Your task to perform on an android device: install app "Airtel Thanks" Image 0: 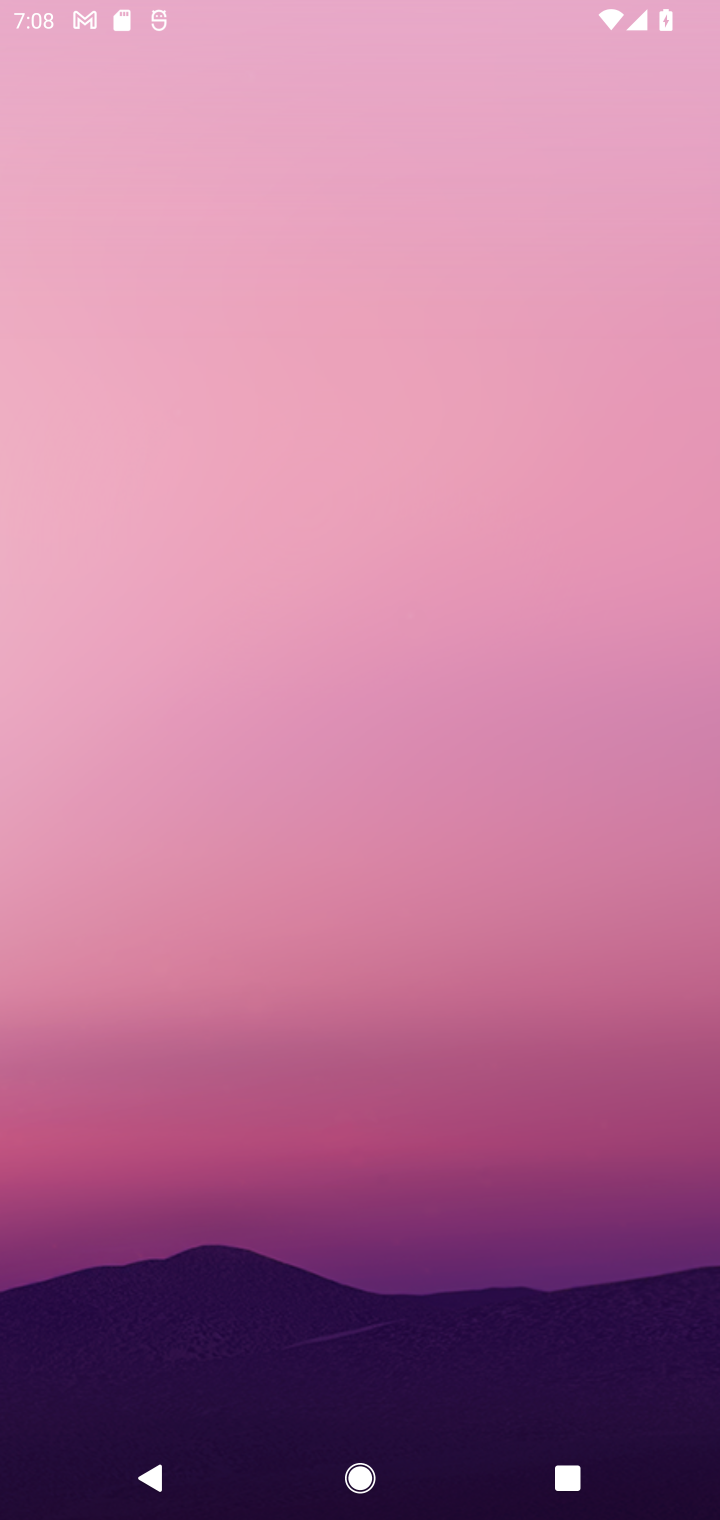
Step 0: press home button
Your task to perform on an android device: install app "Airtel Thanks" Image 1: 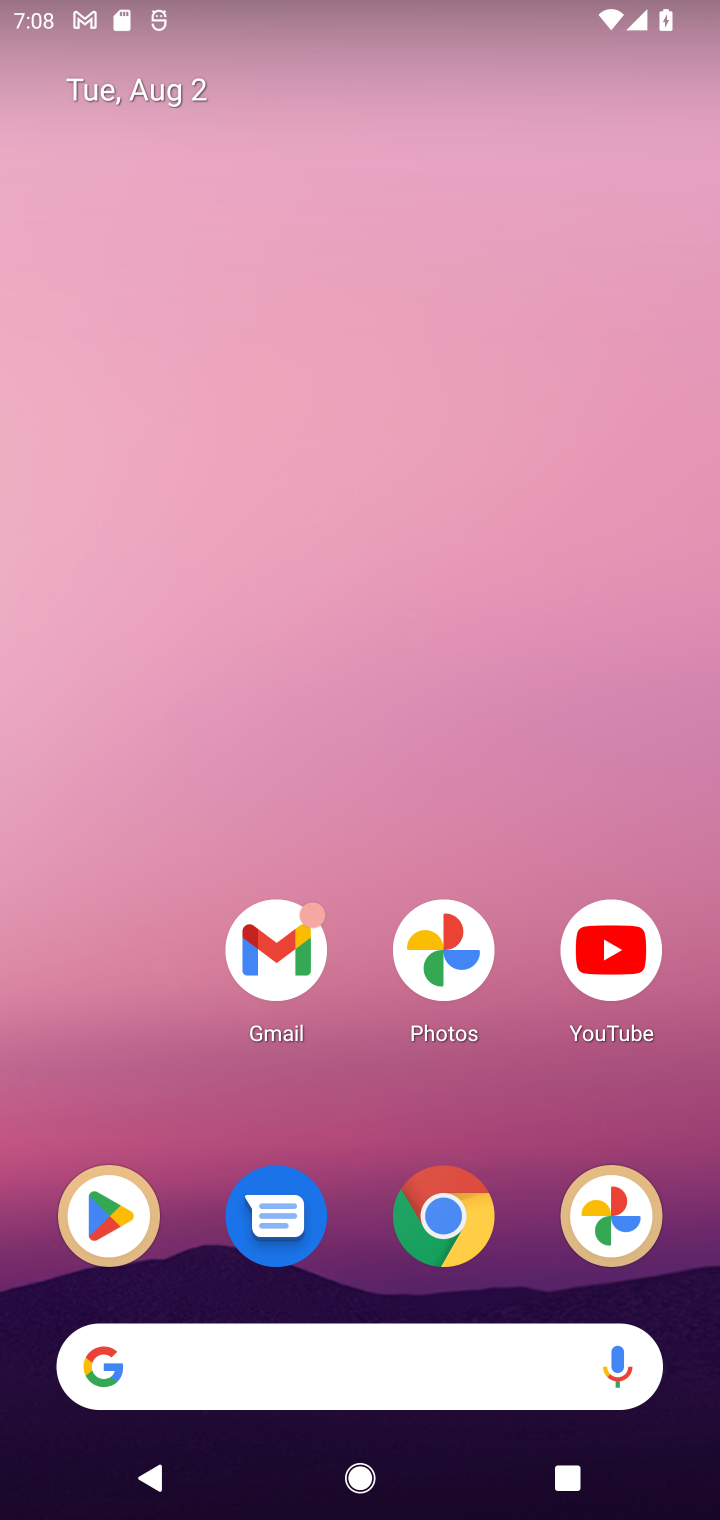
Step 1: click (94, 1217)
Your task to perform on an android device: install app "Airtel Thanks" Image 2: 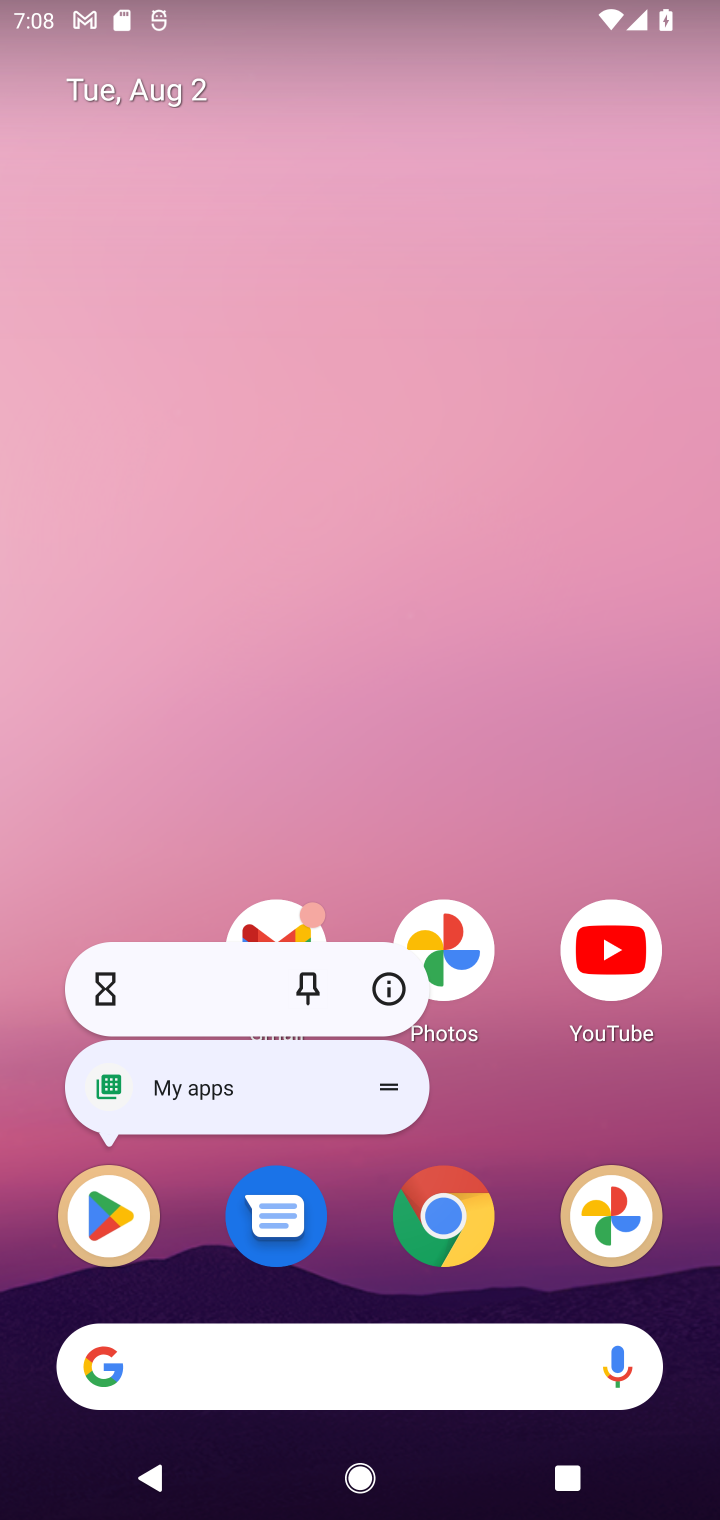
Step 2: click (102, 1215)
Your task to perform on an android device: install app "Airtel Thanks" Image 3: 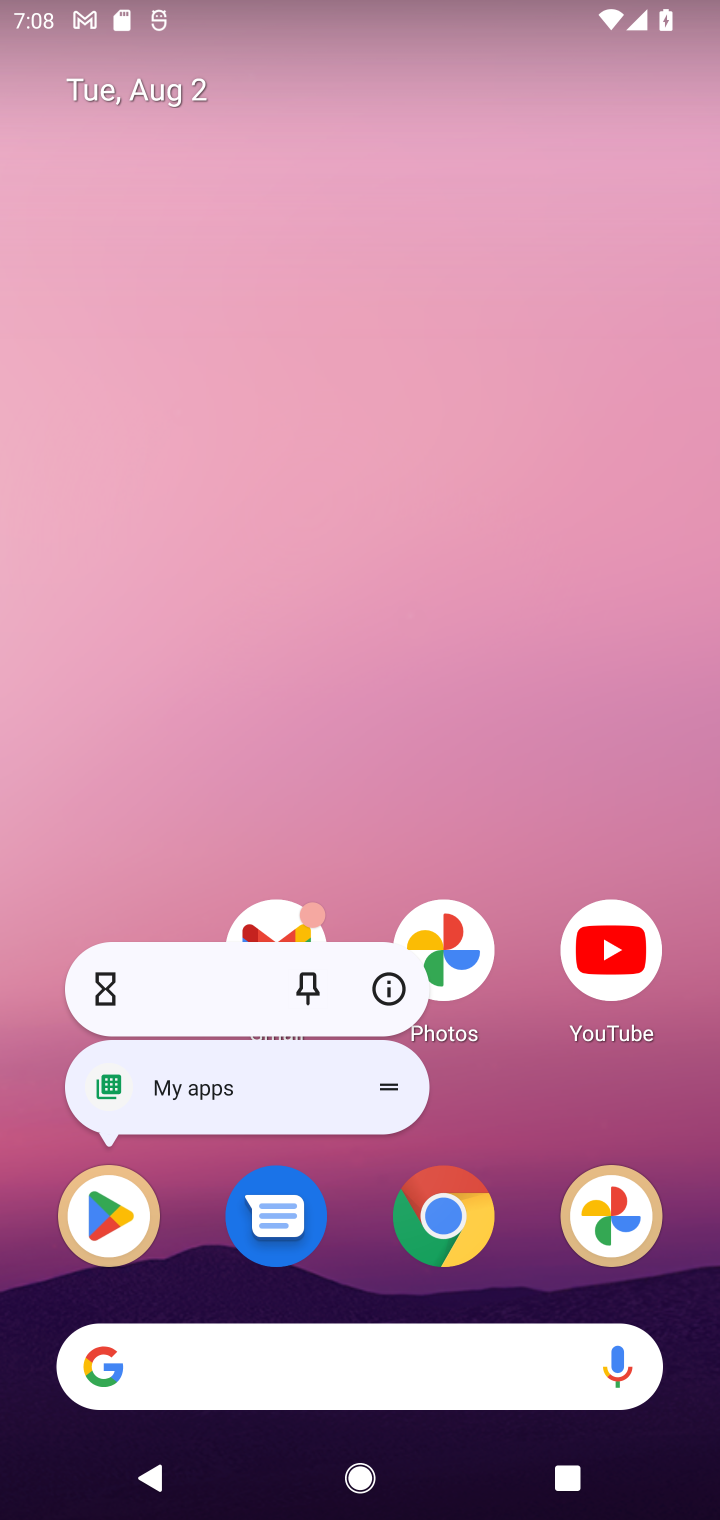
Step 3: click (102, 1215)
Your task to perform on an android device: install app "Airtel Thanks" Image 4: 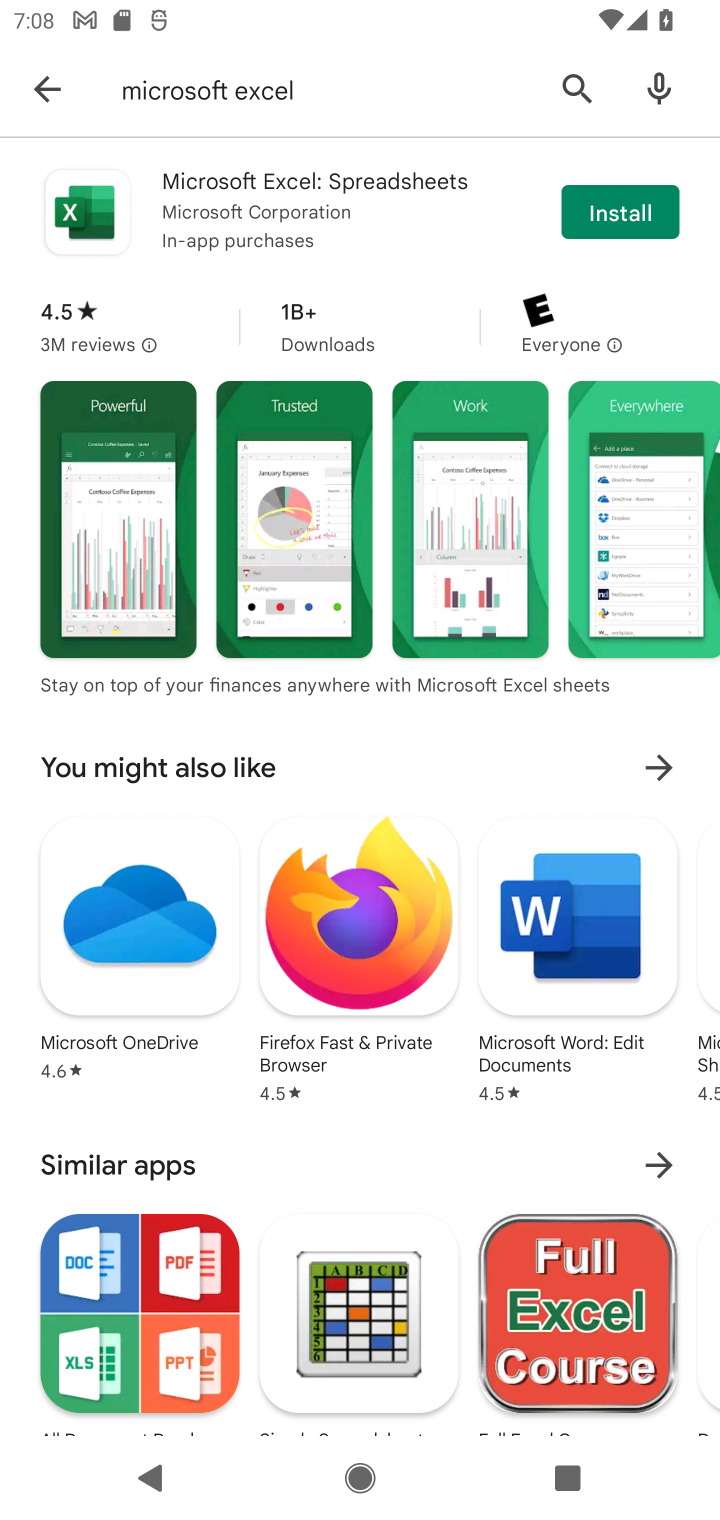
Step 4: click (574, 72)
Your task to perform on an android device: install app "Airtel Thanks" Image 5: 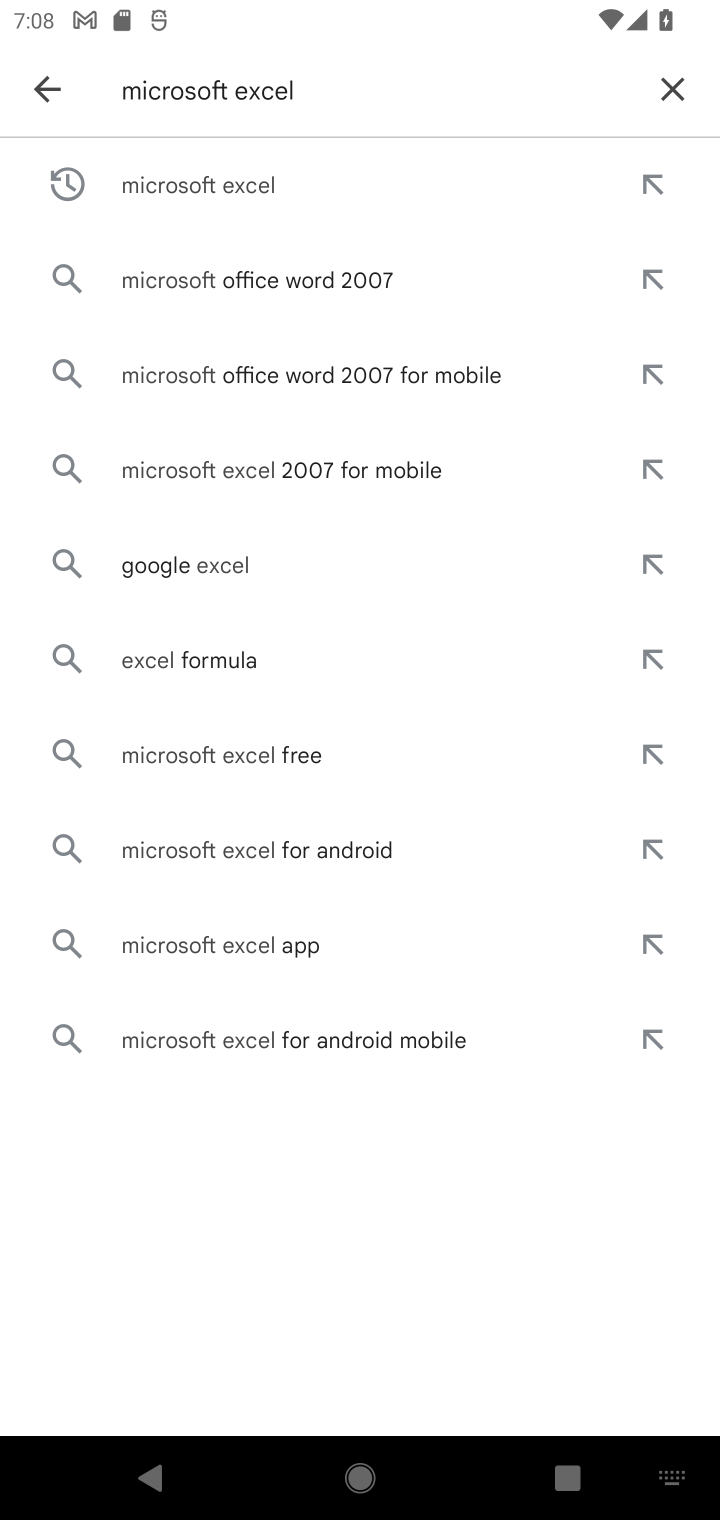
Step 5: click (667, 70)
Your task to perform on an android device: install app "Airtel Thanks" Image 6: 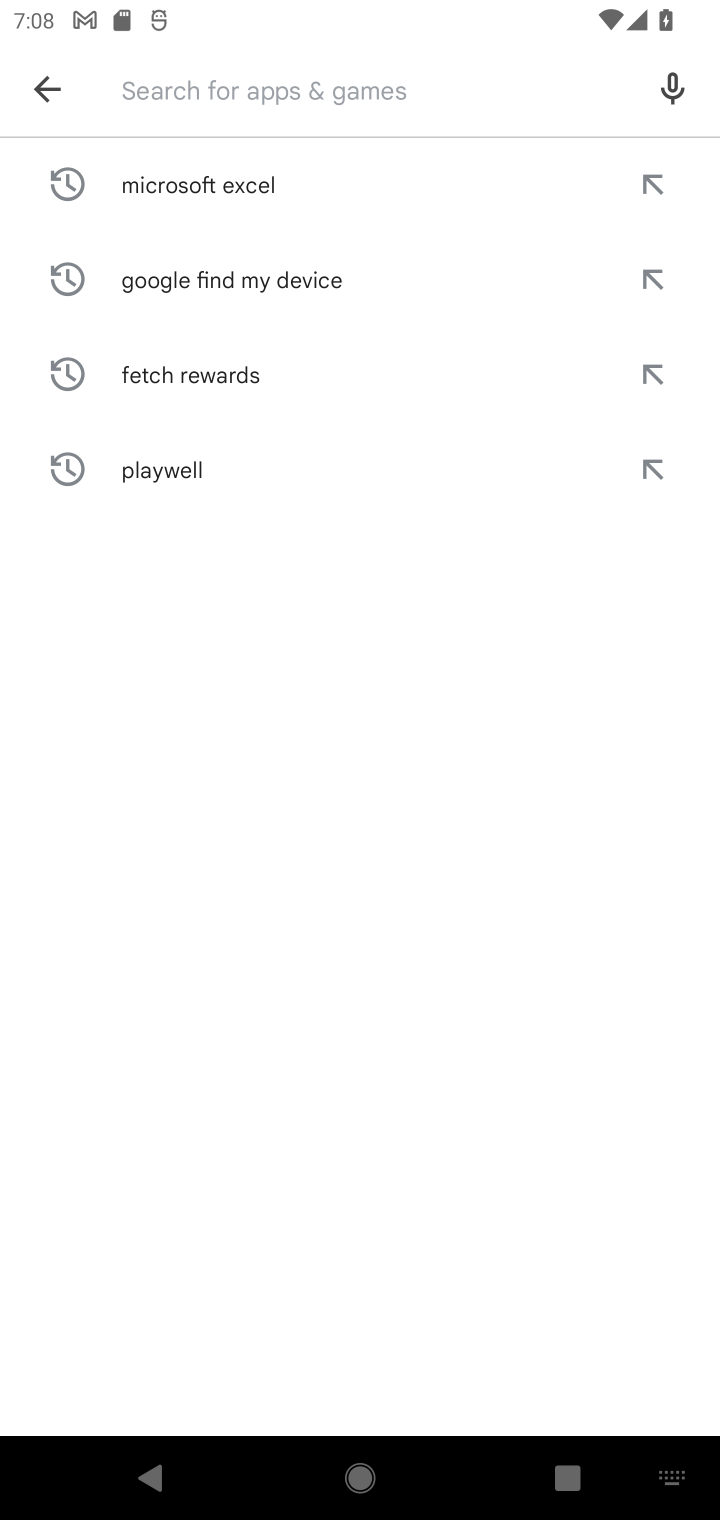
Step 6: type "Airtel Thanks"
Your task to perform on an android device: install app "Airtel Thanks" Image 7: 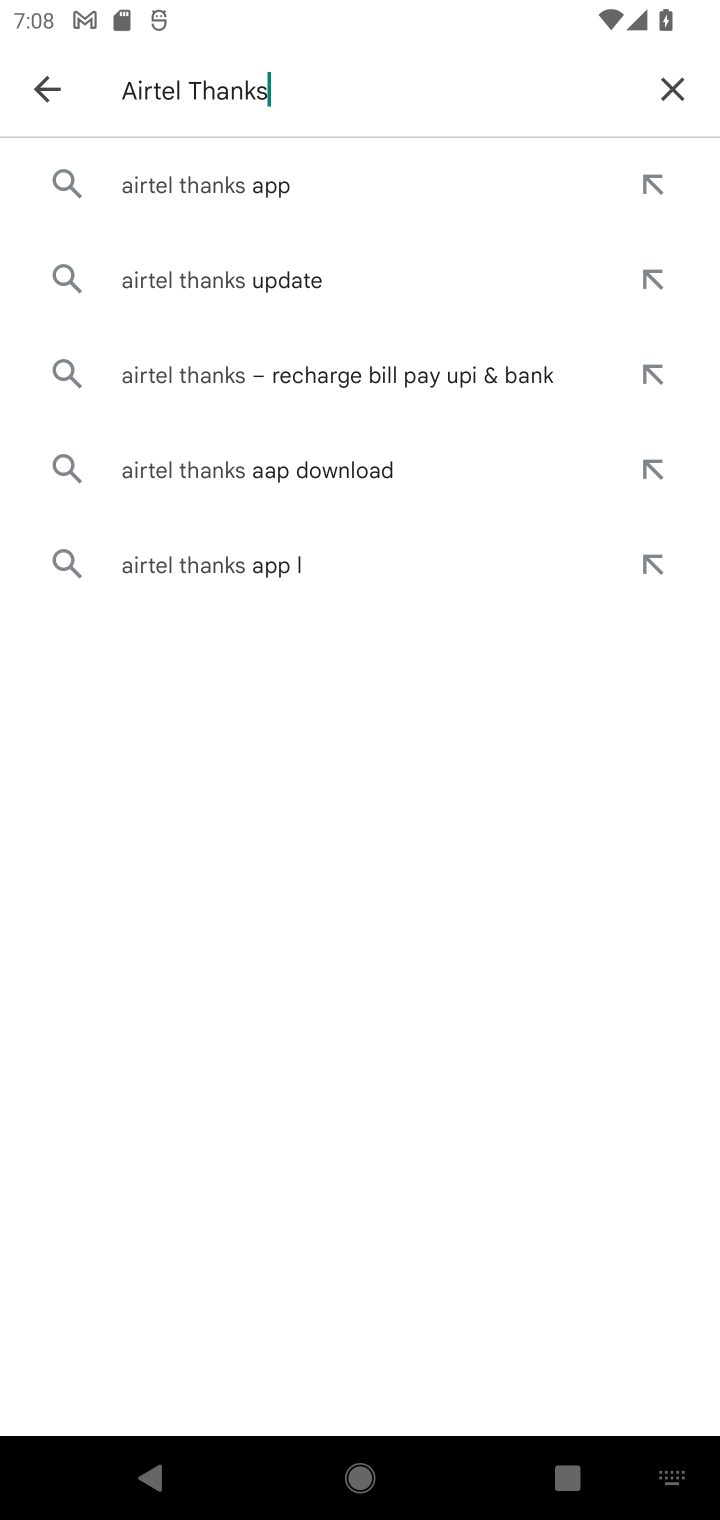
Step 7: click (268, 181)
Your task to perform on an android device: install app "Airtel Thanks" Image 8: 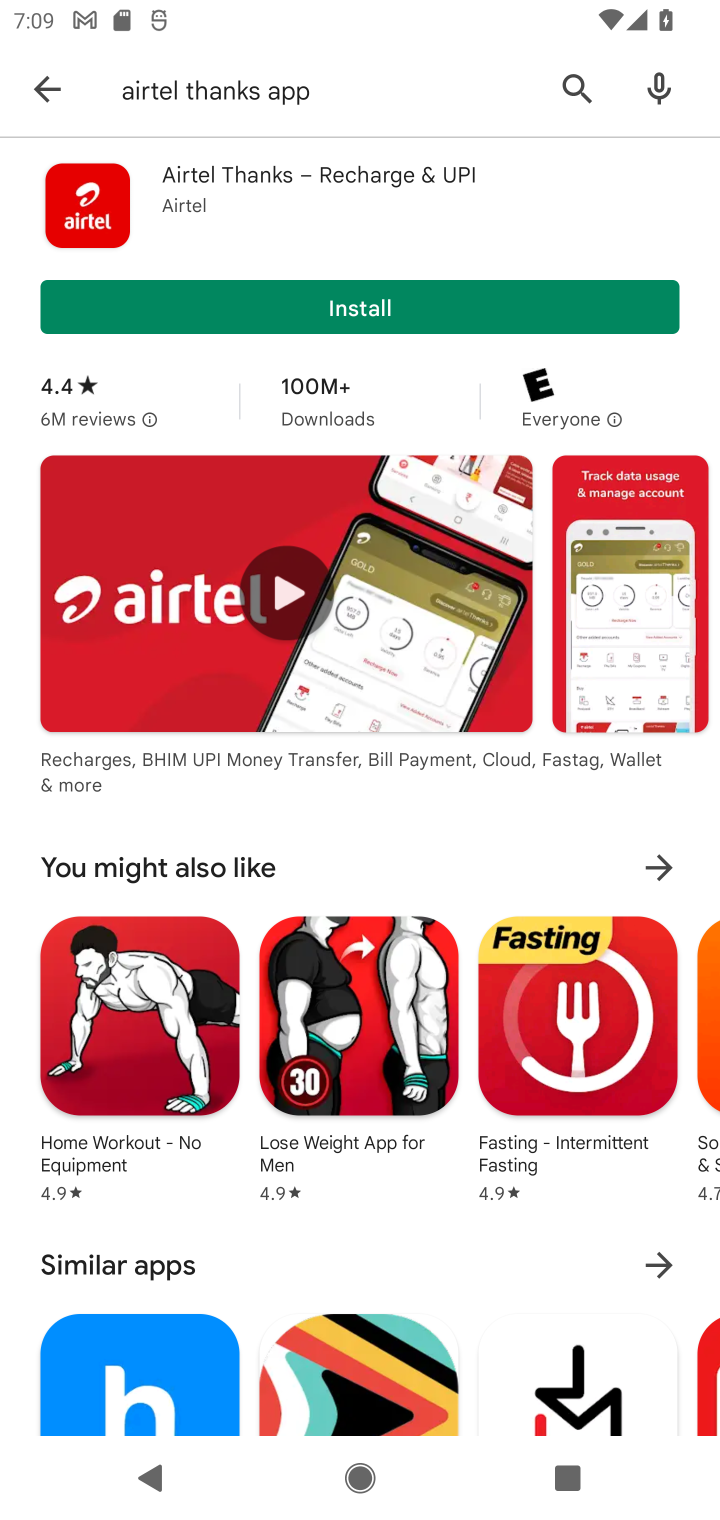
Step 8: click (382, 312)
Your task to perform on an android device: install app "Airtel Thanks" Image 9: 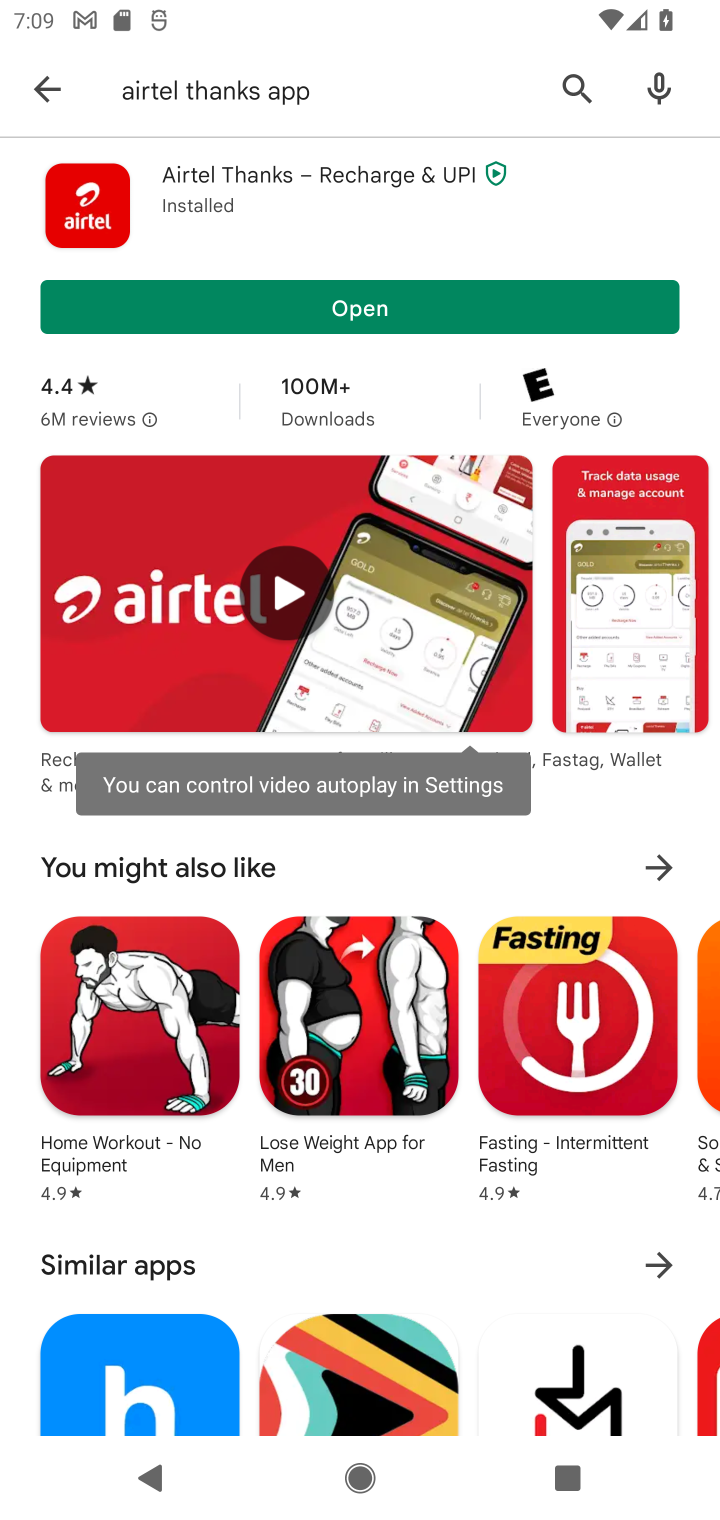
Step 9: task complete